Your task to perform on an android device: change text size in settings app Image 0: 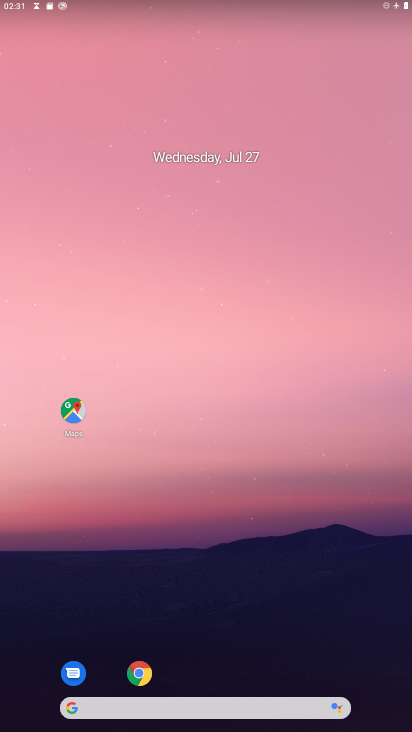
Step 0: drag from (206, 664) to (271, 100)
Your task to perform on an android device: change text size in settings app Image 1: 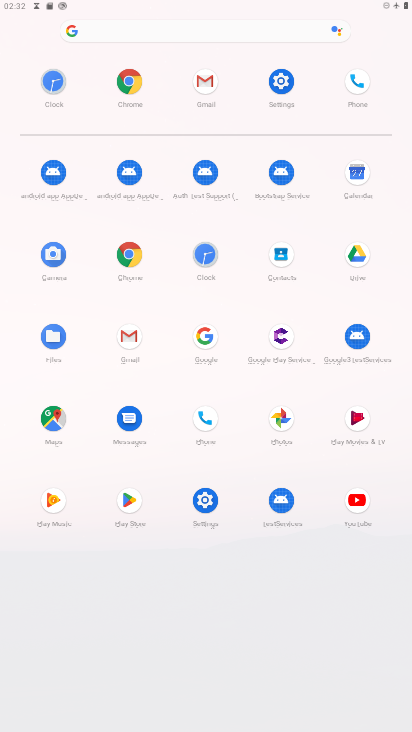
Step 1: click (284, 67)
Your task to perform on an android device: change text size in settings app Image 2: 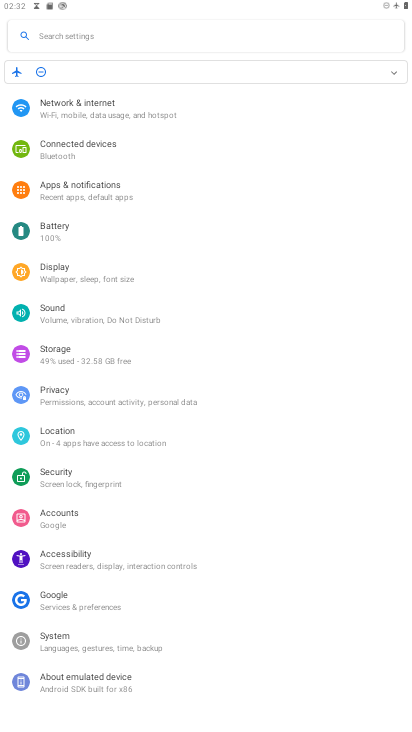
Step 2: click (108, 570)
Your task to perform on an android device: change text size in settings app Image 3: 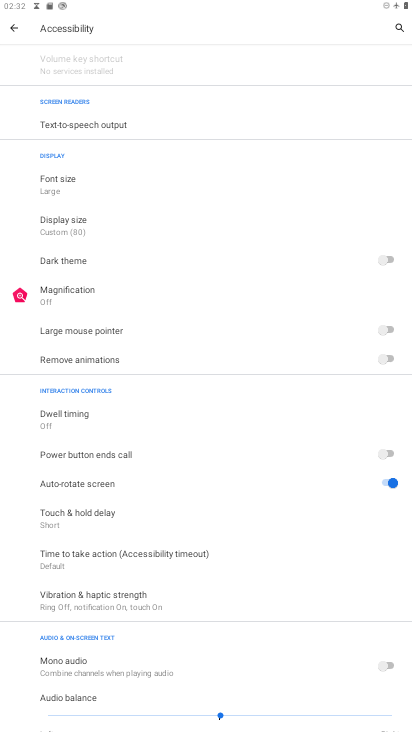
Step 3: click (50, 188)
Your task to perform on an android device: change text size in settings app Image 4: 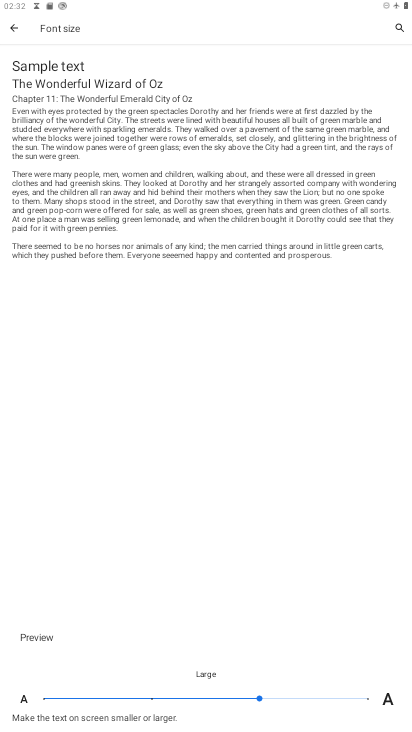
Step 4: click (366, 695)
Your task to perform on an android device: change text size in settings app Image 5: 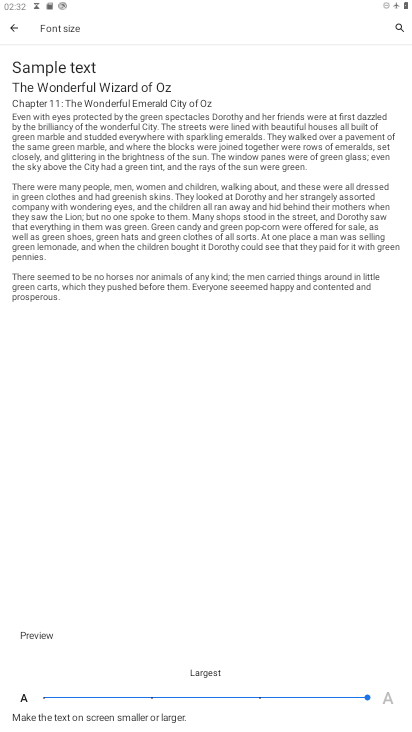
Step 5: task complete